Your task to perform on an android device: What's the weather today? Image 0: 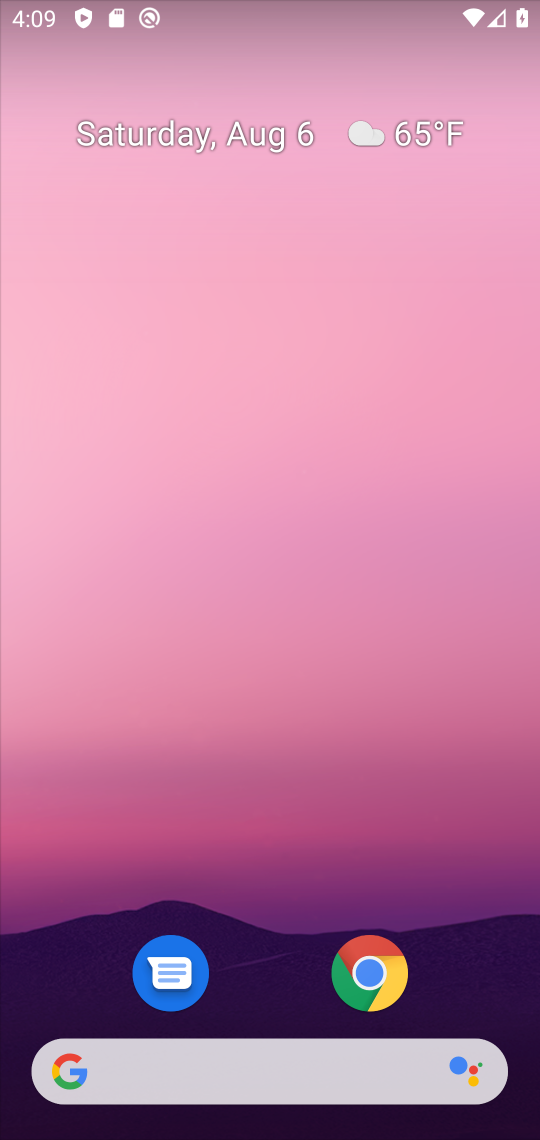
Step 0: drag from (474, 973) to (404, 120)
Your task to perform on an android device: What's the weather today? Image 1: 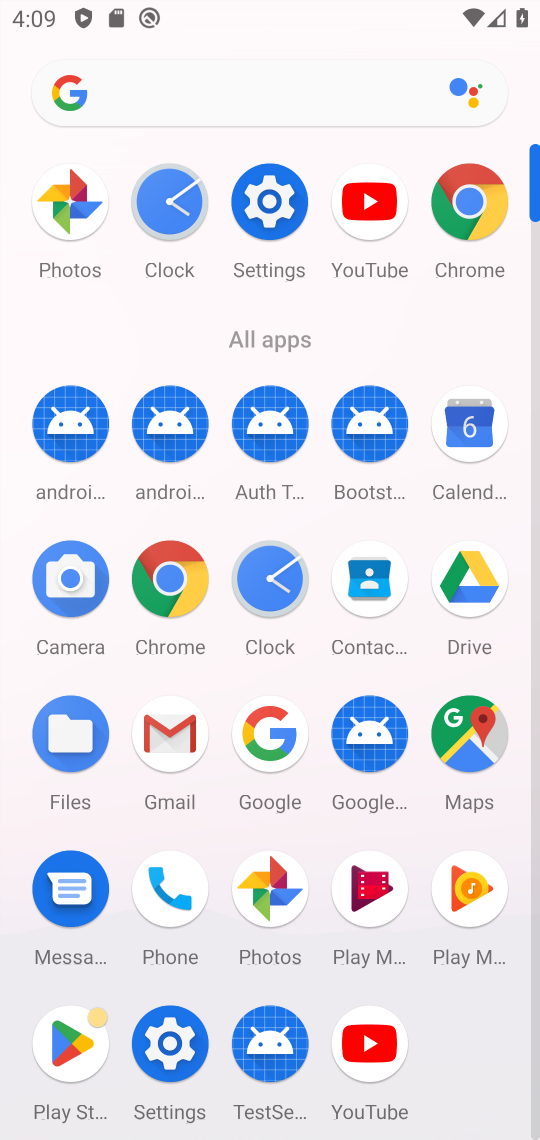
Step 1: press home button
Your task to perform on an android device: What's the weather today? Image 2: 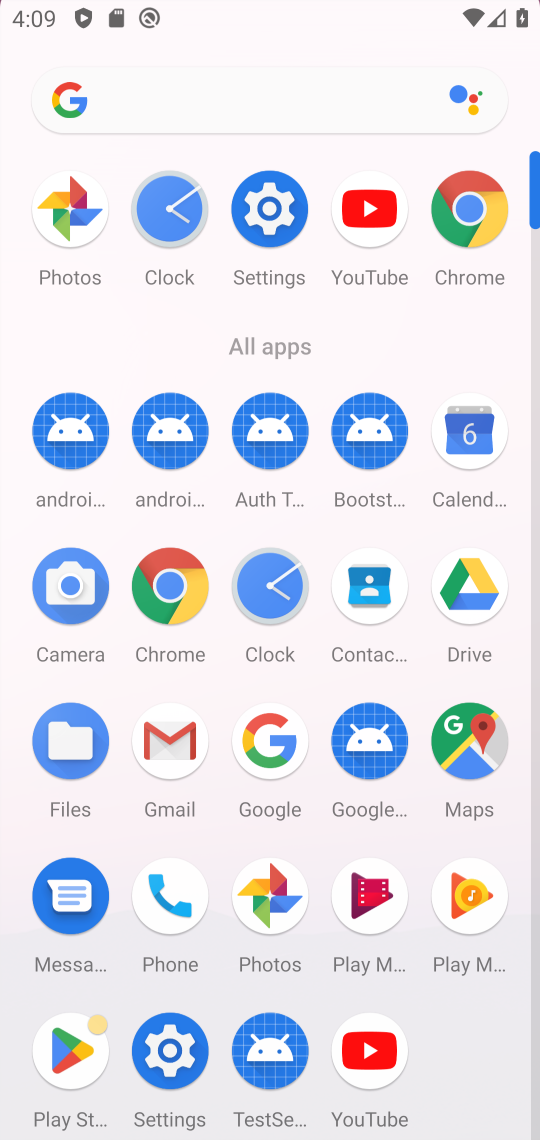
Step 2: press home button
Your task to perform on an android device: What's the weather today? Image 3: 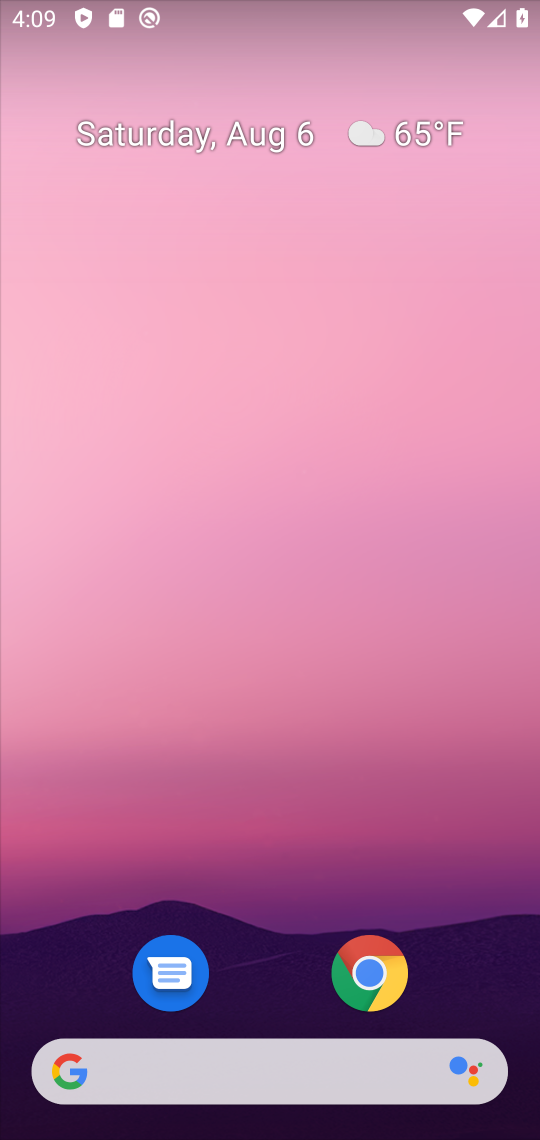
Step 3: click (427, 132)
Your task to perform on an android device: What's the weather today? Image 4: 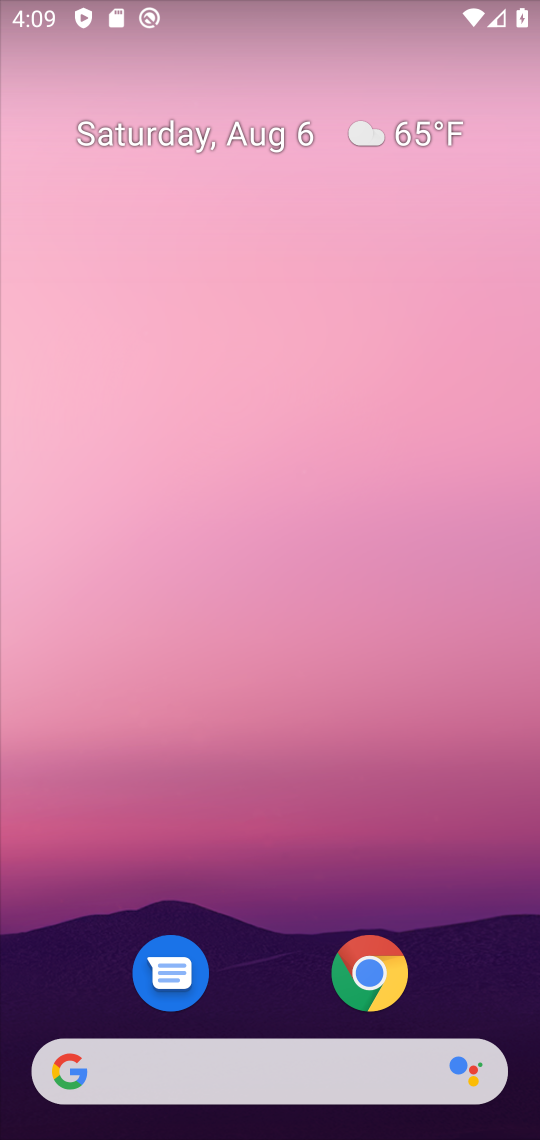
Step 4: click (427, 132)
Your task to perform on an android device: What's the weather today? Image 5: 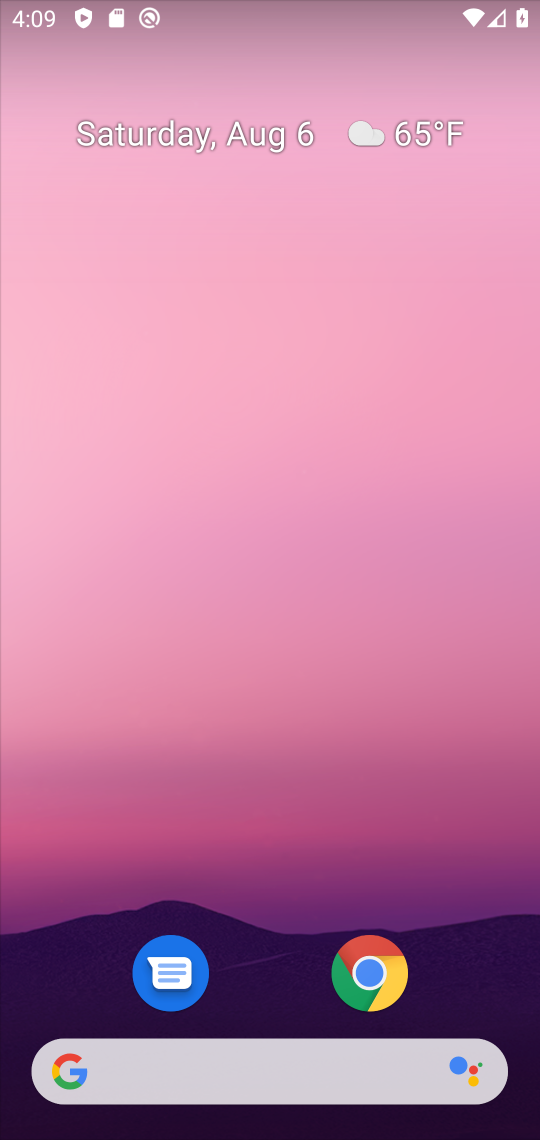
Step 5: click (427, 132)
Your task to perform on an android device: What's the weather today? Image 6: 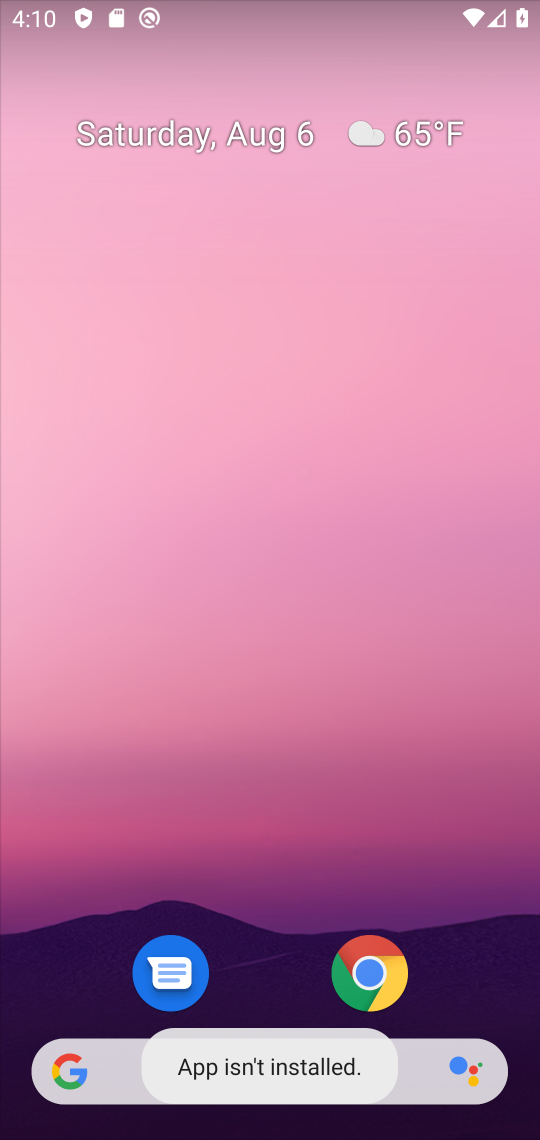
Step 6: click (416, 120)
Your task to perform on an android device: What's the weather today? Image 7: 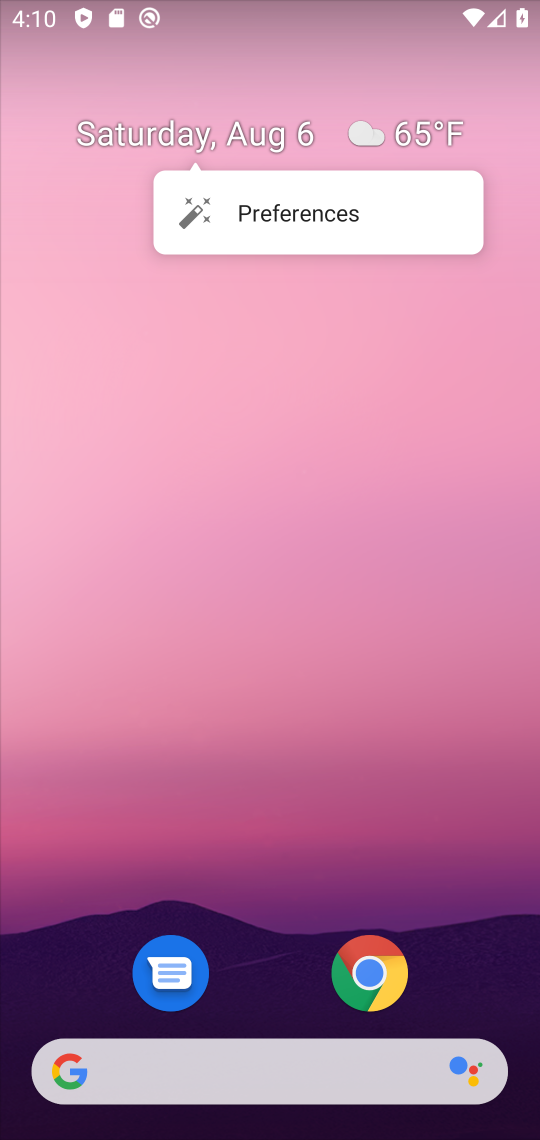
Step 7: click (409, 133)
Your task to perform on an android device: What's the weather today? Image 8: 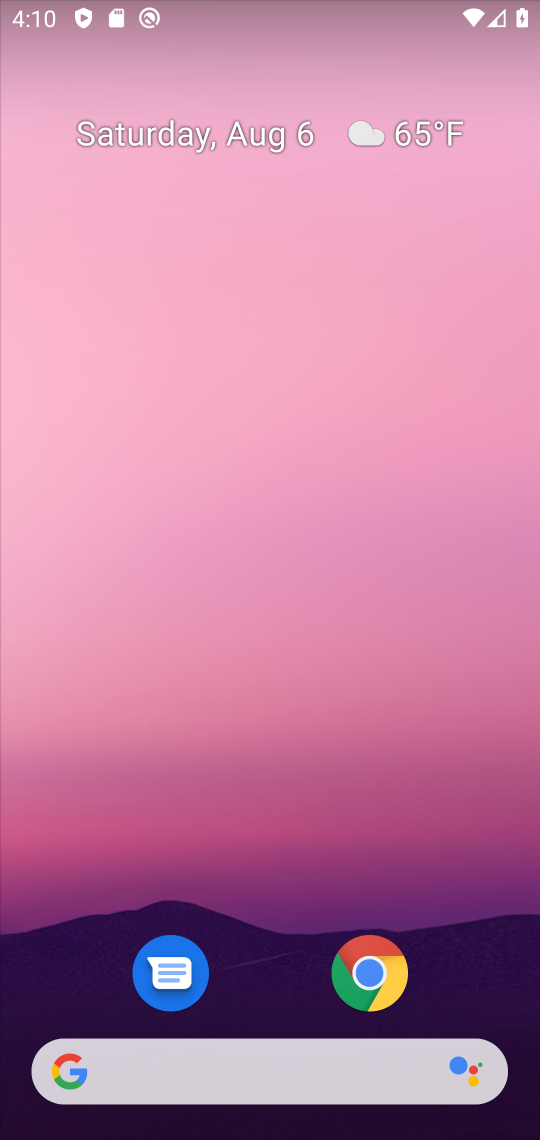
Step 8: click (409, 136)
Your task to perform on an android device: What's the weather today? Image 9: 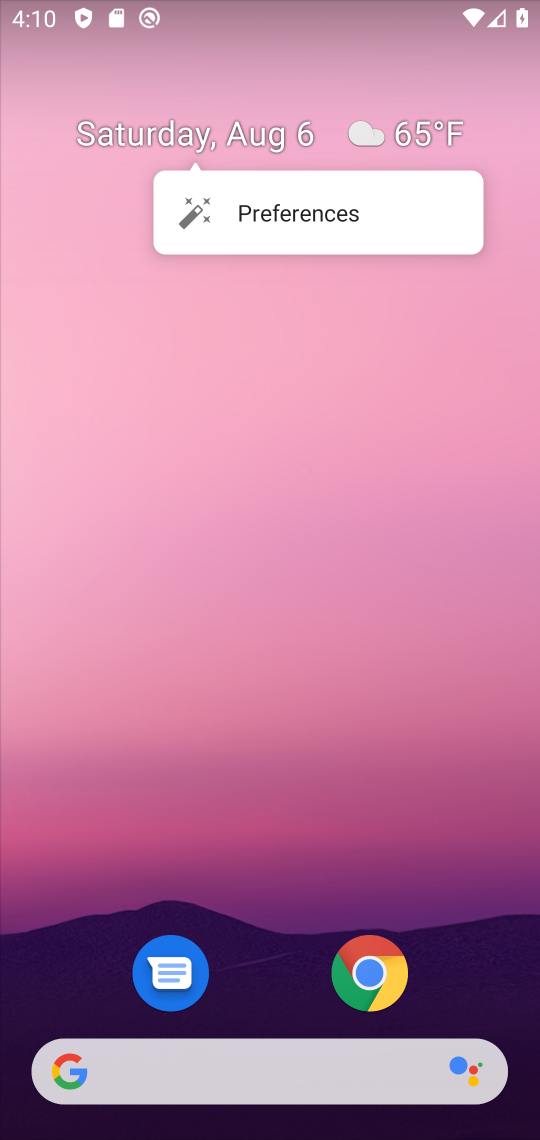
Step 9: drag from (471, 972) to (471, 162)
Your task to perform on an android device: What's the weather today? Image 10: 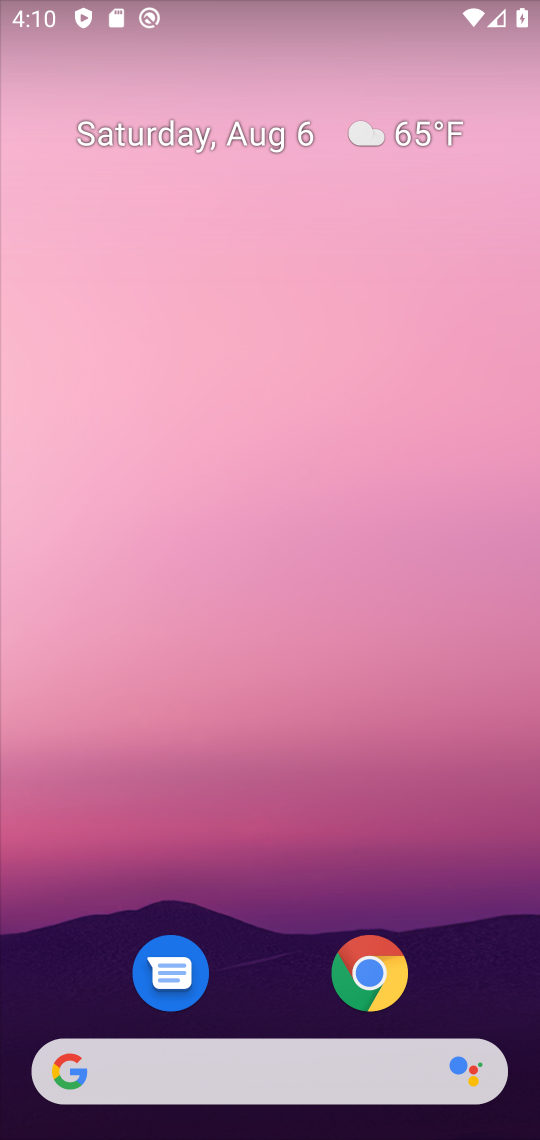
Step 10: drag from (468, 849) to (440, 215)
Your task to perform on an android device: What's the weather today? Image 11: 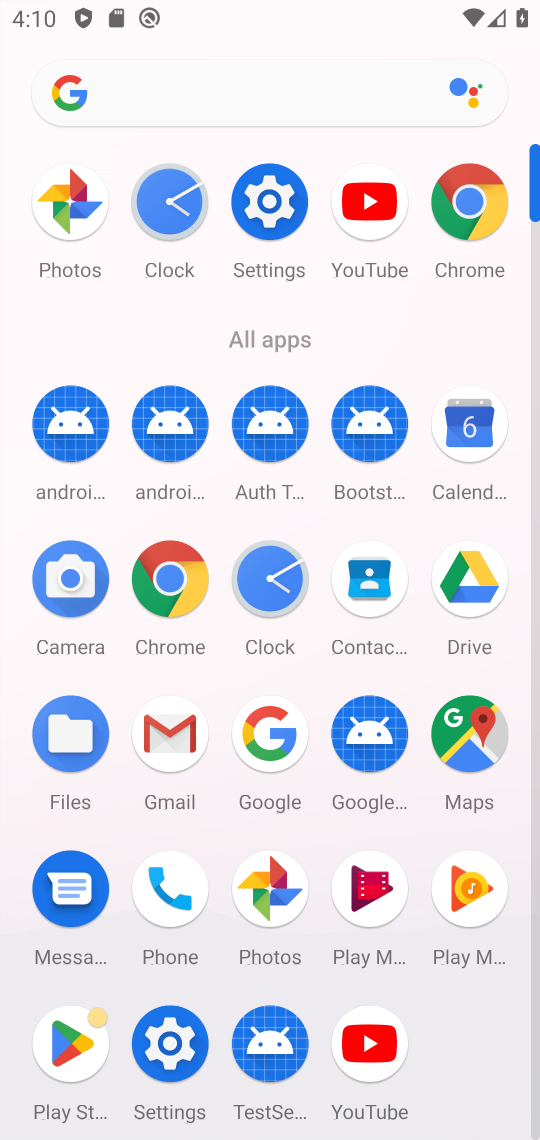
Step 11: click (177, 567)
Your task to perform on an android device: What's the weather today? Image 12: 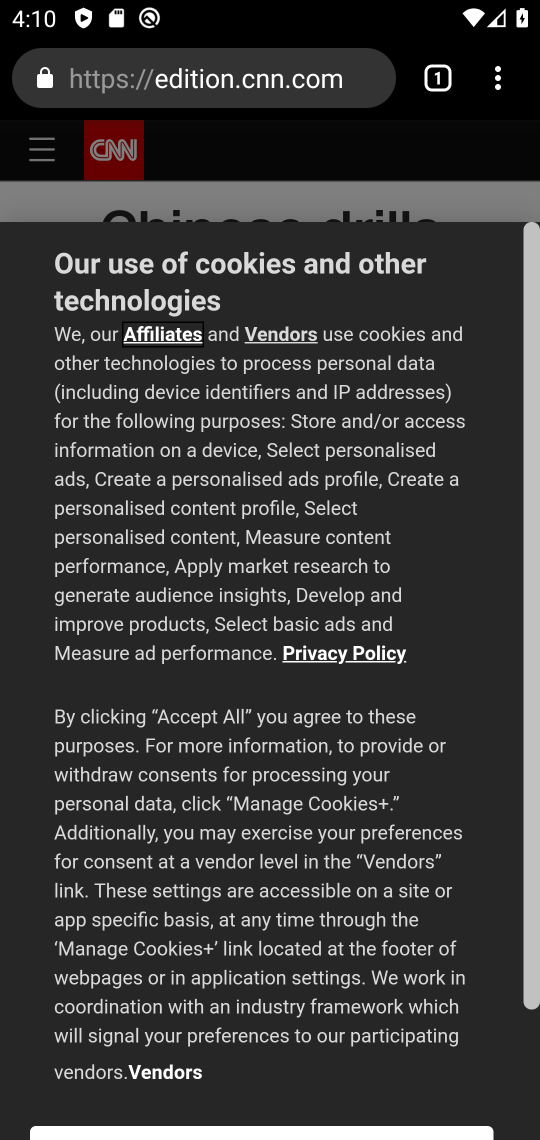
Step 12: click (323, 75)
Your task to perform on an android device: What's the weather today? Image 13: 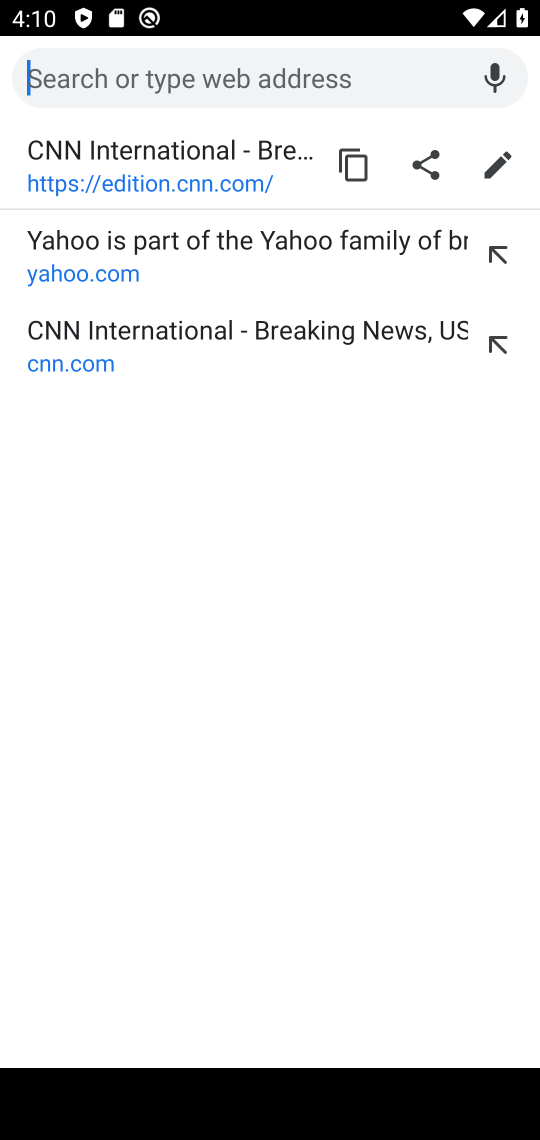
Step 13: type "weather"
Your task to perform on an android device: What's the weather today? Image 14: 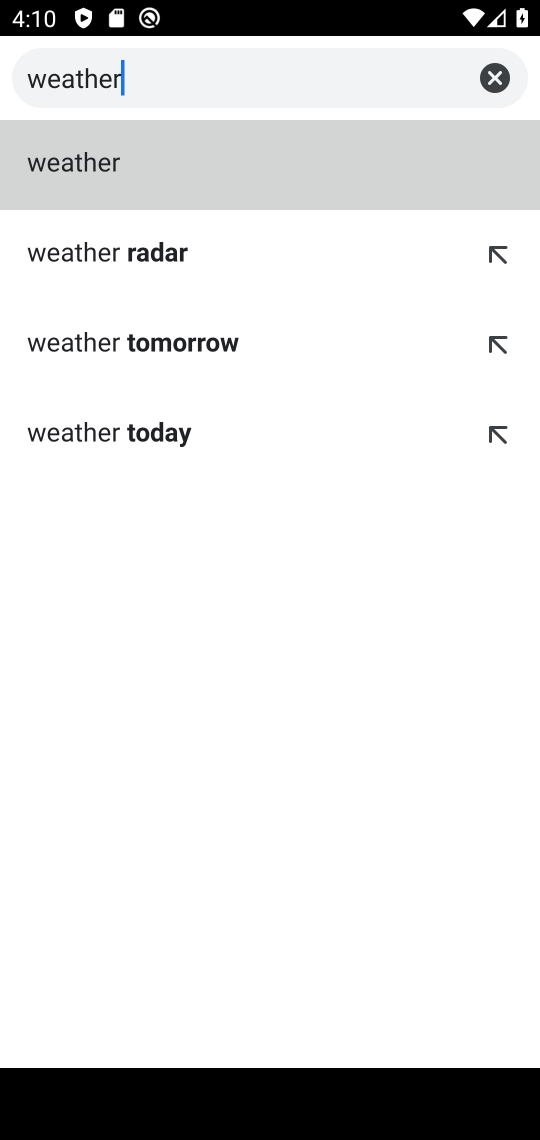
Step 14: click (70, 155)
Your task to perform on an android device: What's the weather today? Image 15: 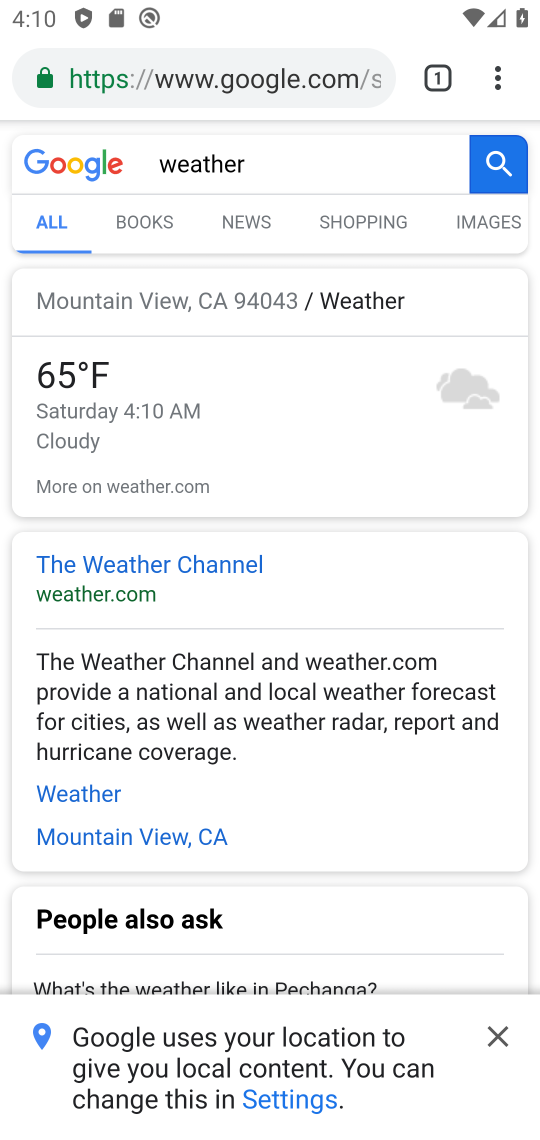
Step 15: task complete